Your task to perform on an android device: open app "VLC for Android" Image 0: 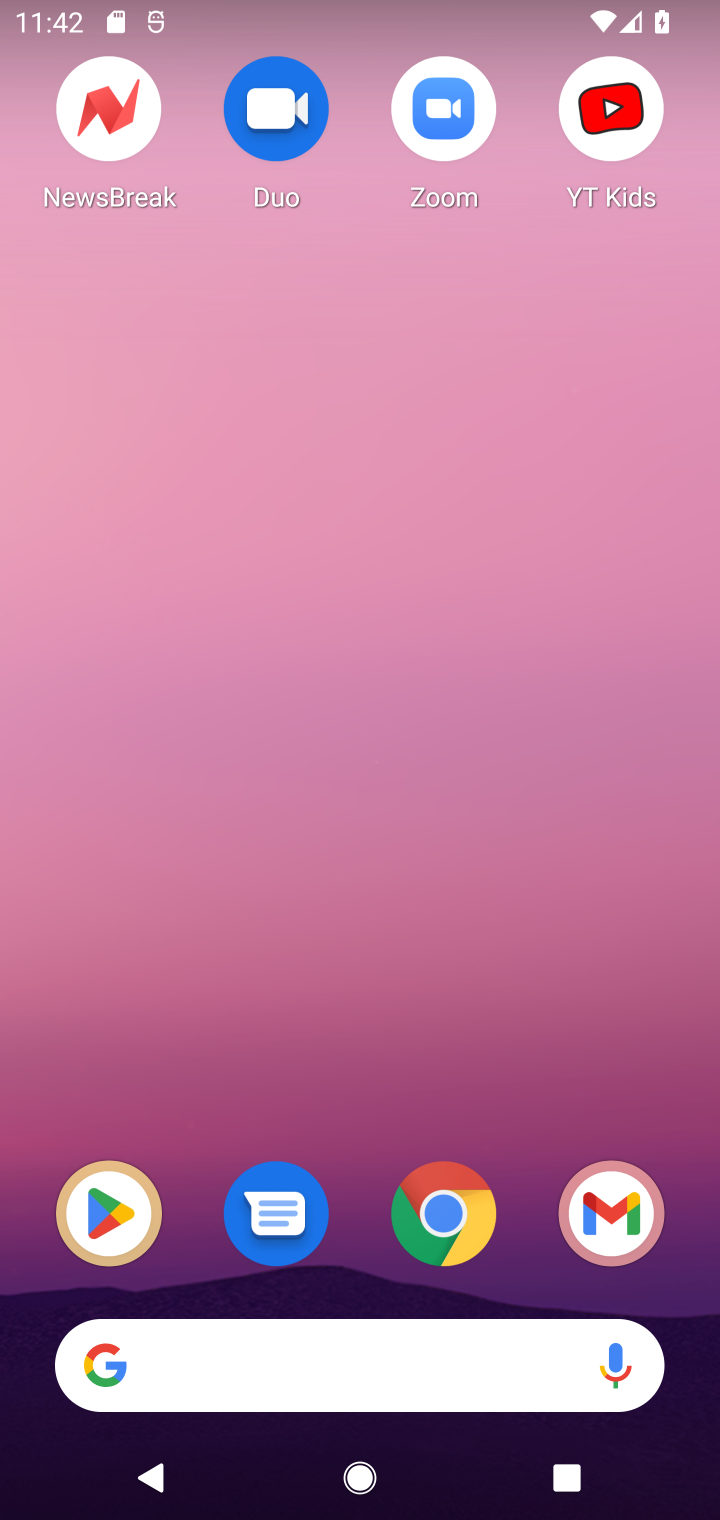
Step 0: click (76, 1218)
Your task to perform on an android device: open app "VLC for Android" Image 1: 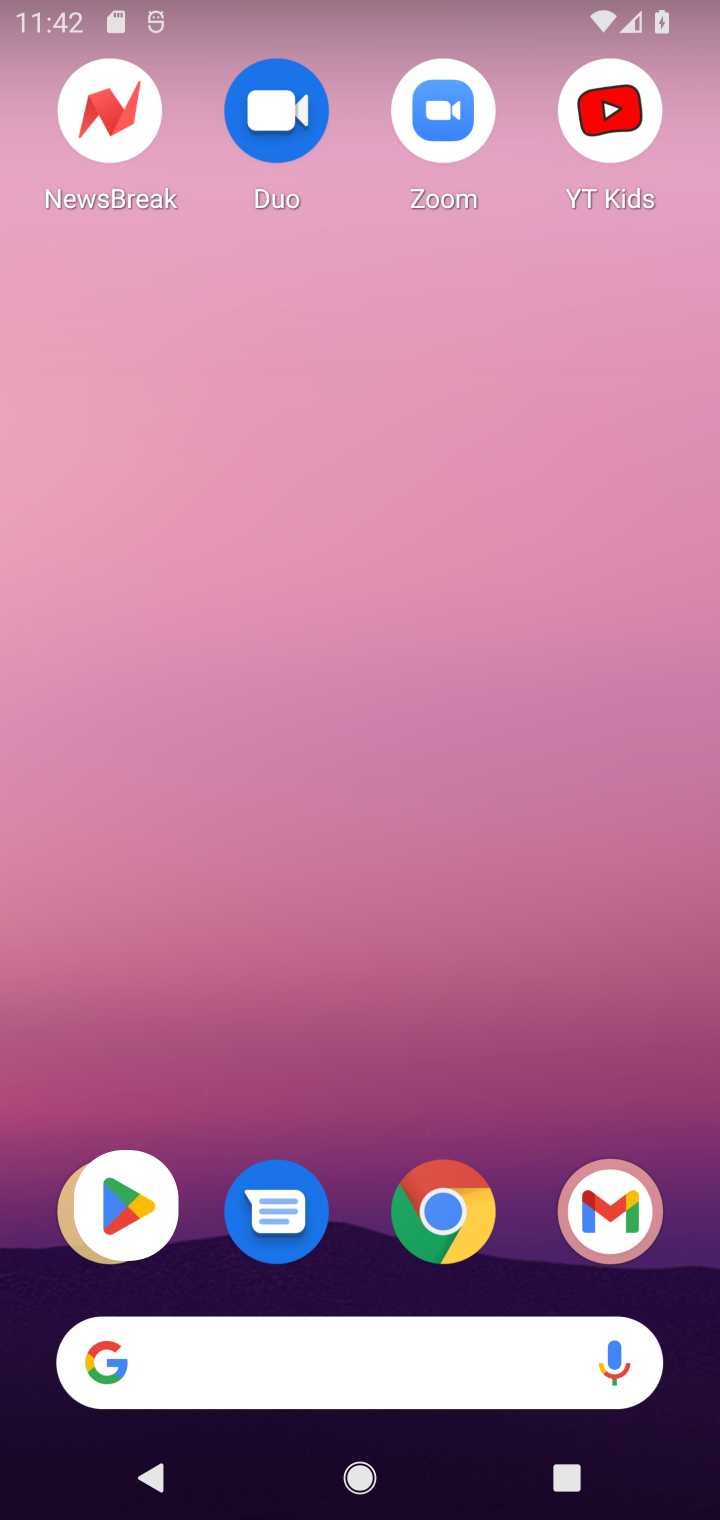
Step 1: click (76, 1218)
Your task to perform on an android device: open app "VLC for Android" Image 2: 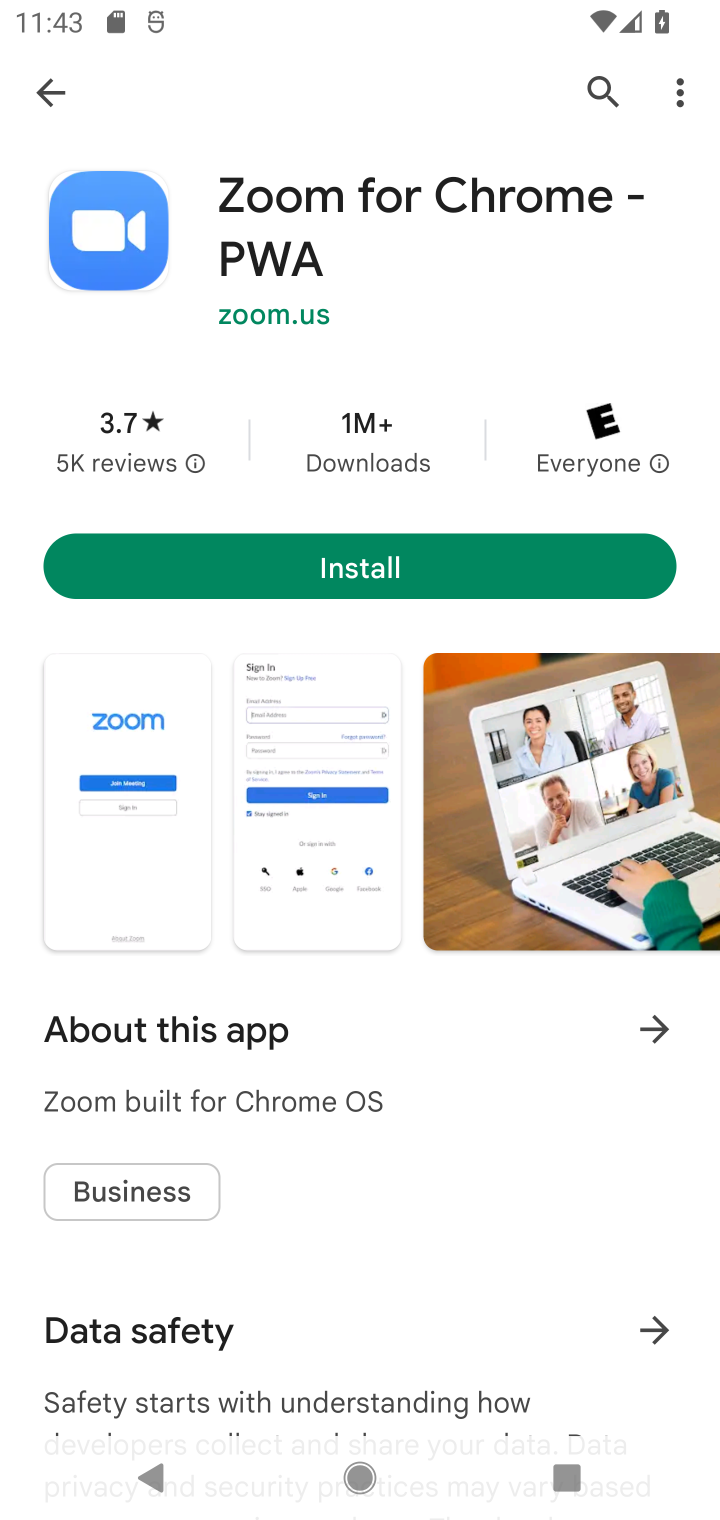
Step 2: click (587, 82)
Your task to perform on an android device: open app "VLC for Android" Image 3: 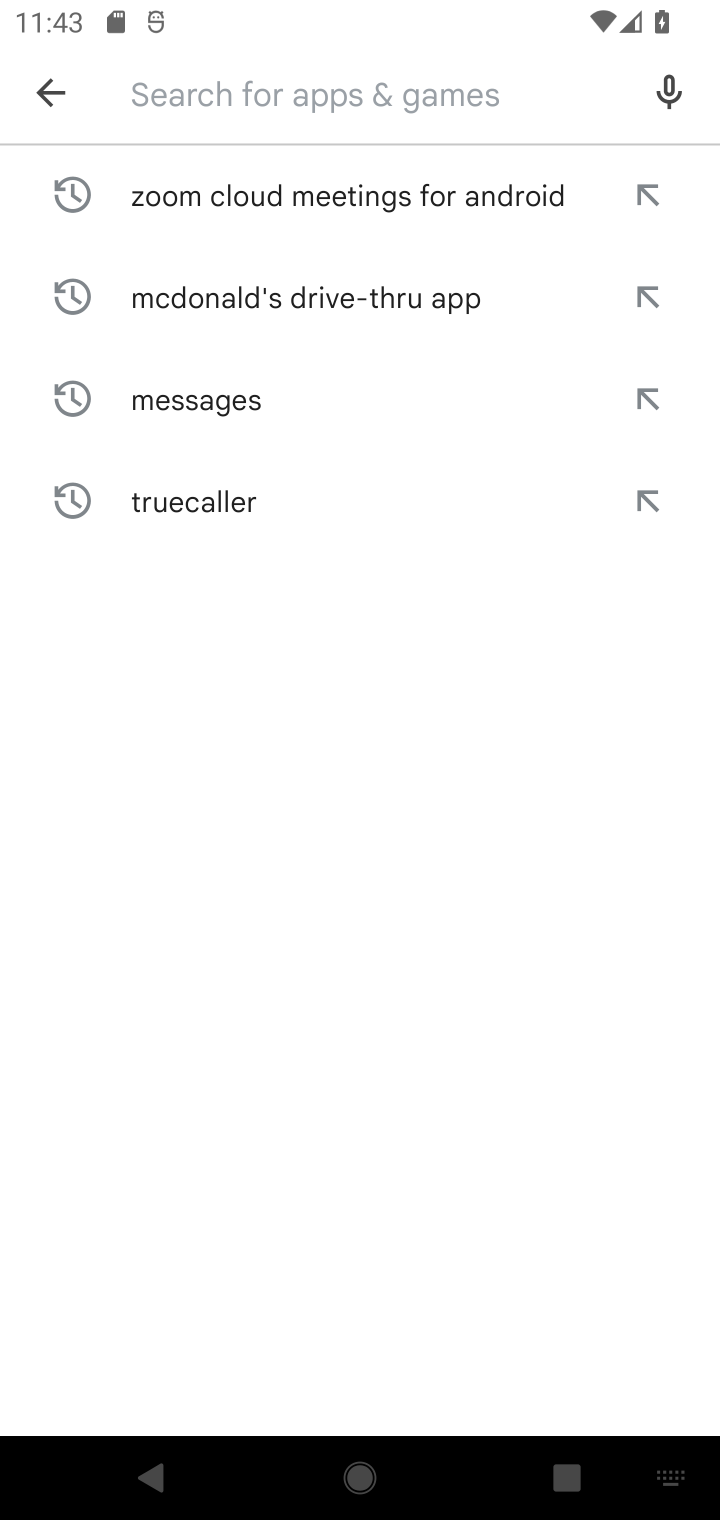
Step 3: type "VLC for Android"
Your task to perform on an android device: open app "VLC for Android" Image 4: 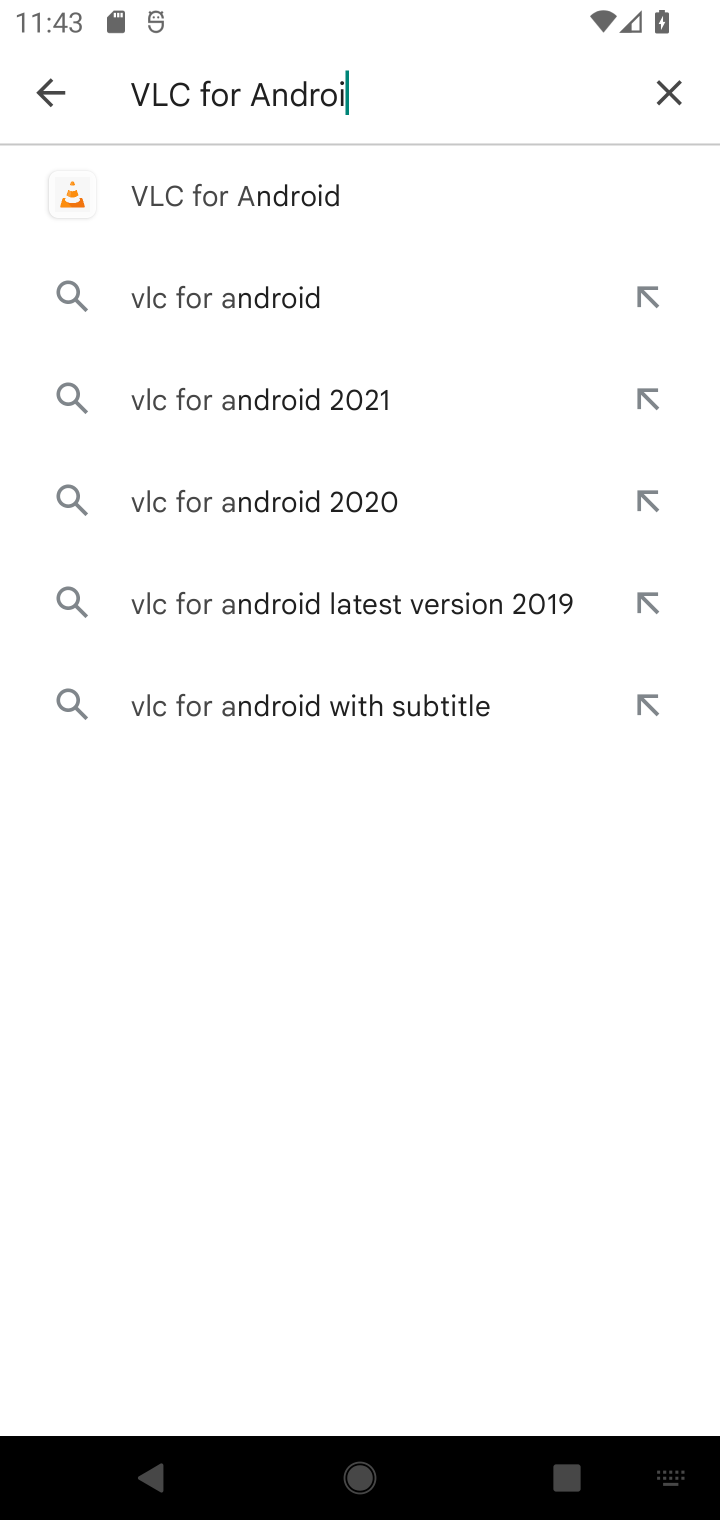
Step 4: type ""
Your task to perform on an android device: open app "VLC for Android" Image 5: 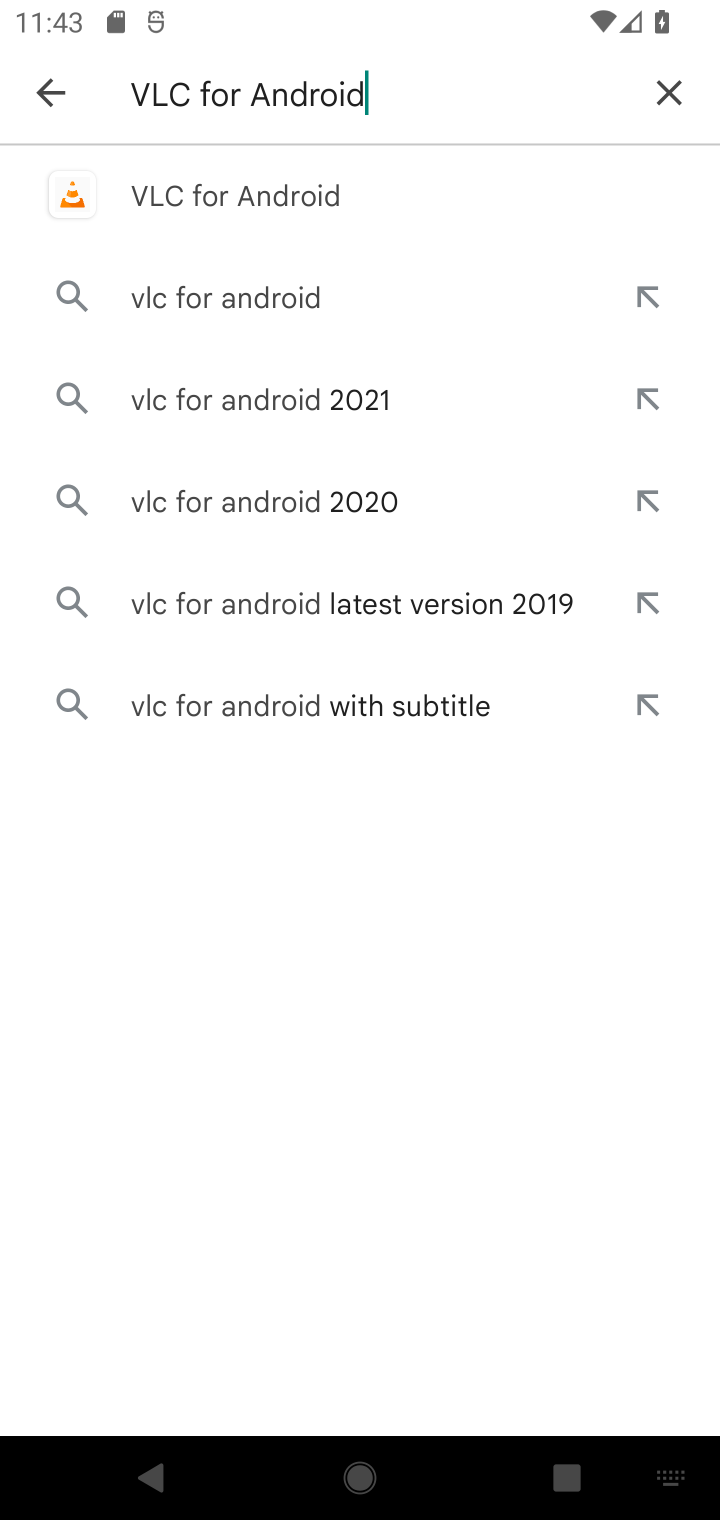
Step 5: click (190, 200)
Your task to perform on an android device: open app "VLC for Android" Image 6: 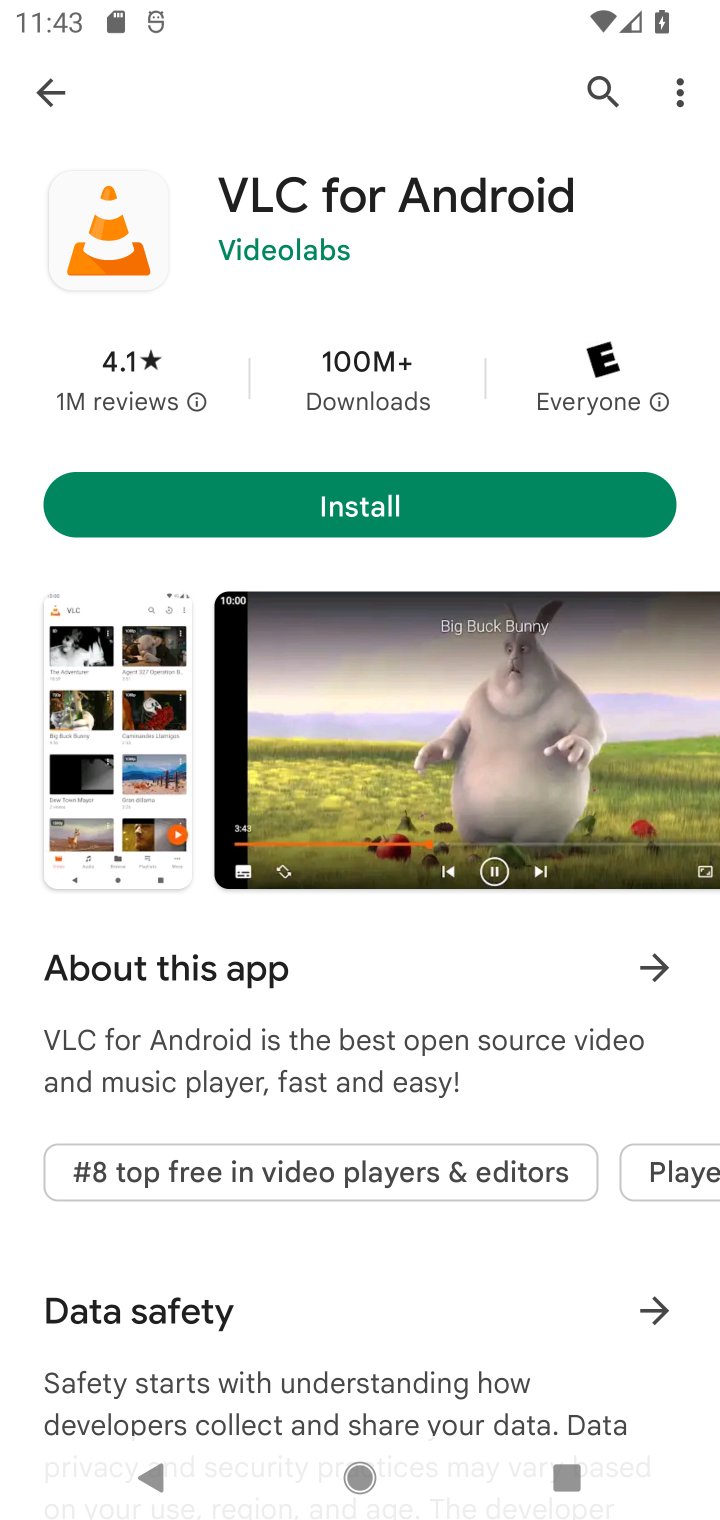
Step 6: task complete